Your task to perform on an android device: Search for "corsair k70" on target, select the first entry, add it to the cart, then select checkout. Image 0: 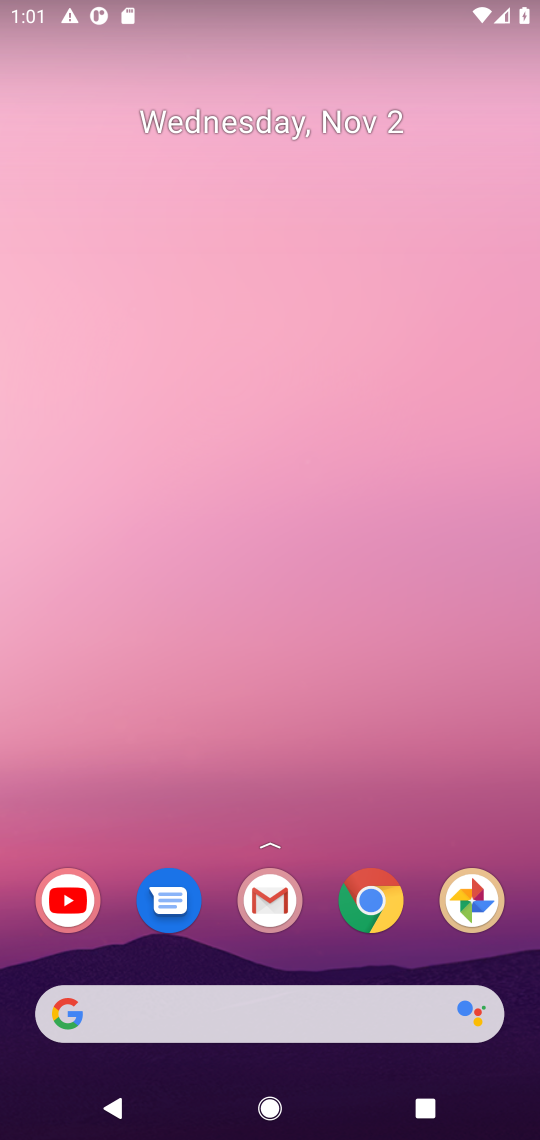
Step 0: click (377, 901)
Your task to perform on an android device: Search for "corsair k70" on target, select the first entry, add it to the cart, then select checkout. Image 1: 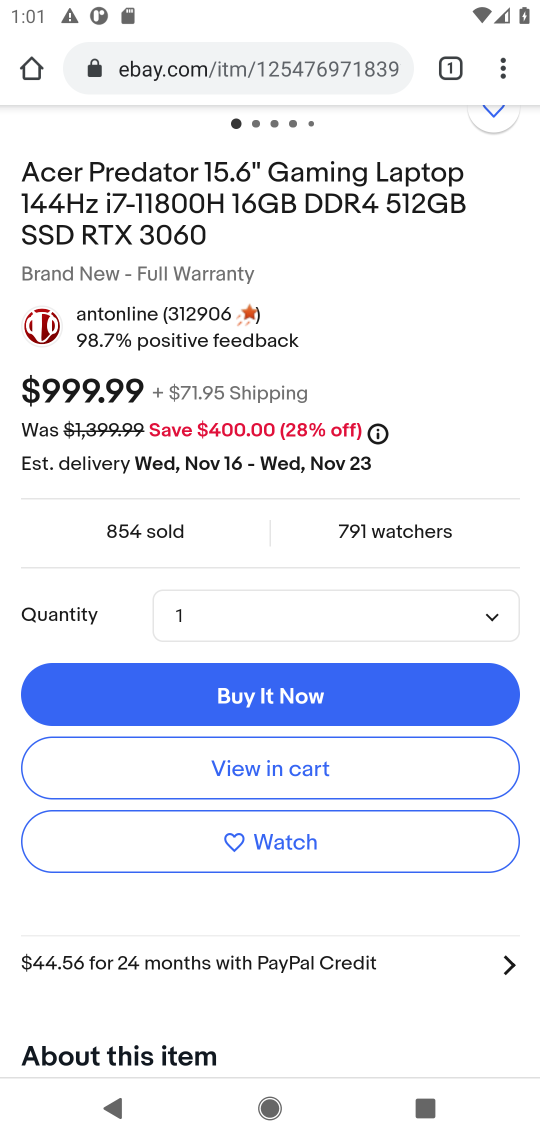
Step 1: click (173, 55)
Your task to perform on an android device: Search for "corsair k70" on target, select the first entry, add it to the cart, then select checkout. Image 2: 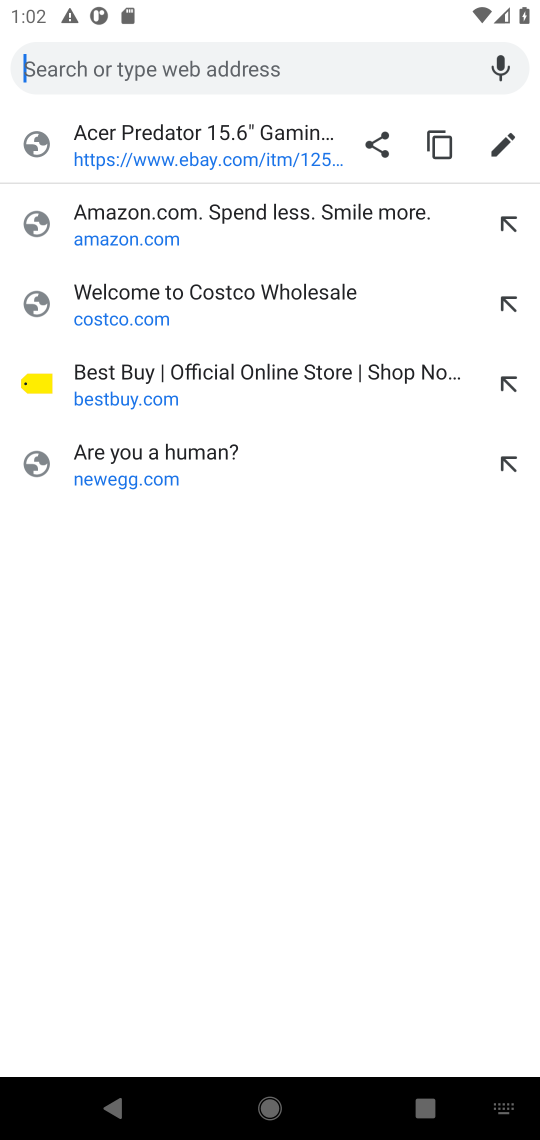
Step 2: type "target"
Your task to perform on an android device: Search for "corsair k70" on target, select the first entry, add it to the cart, then select checkout. Image 3: 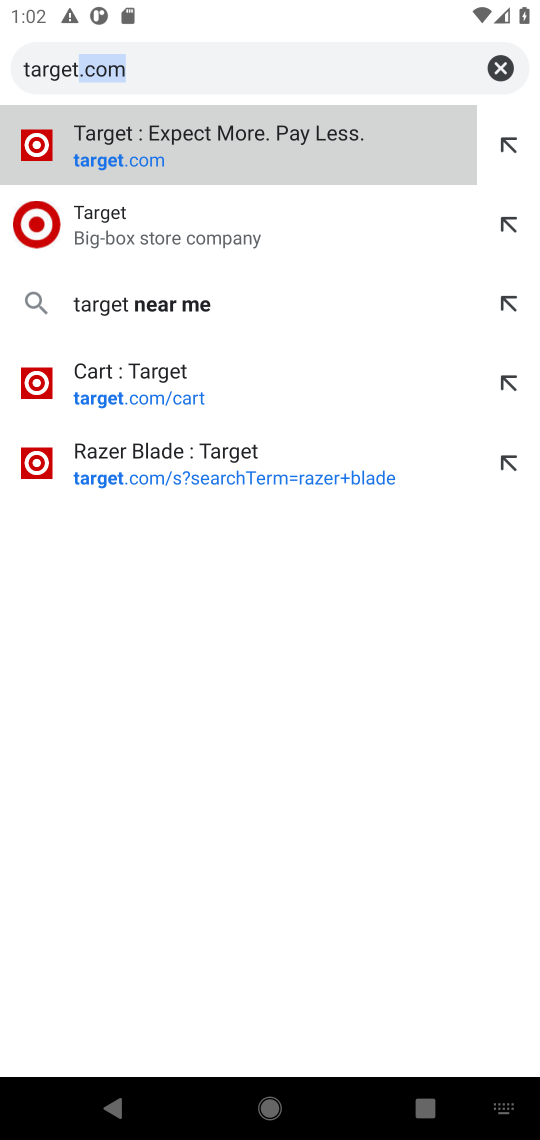
Step 3: click (156, 205)
Your task to perform on an android device: Search for "corsair k70" on target, select the first entry, add it to the cart, then select checkout. Image 4: 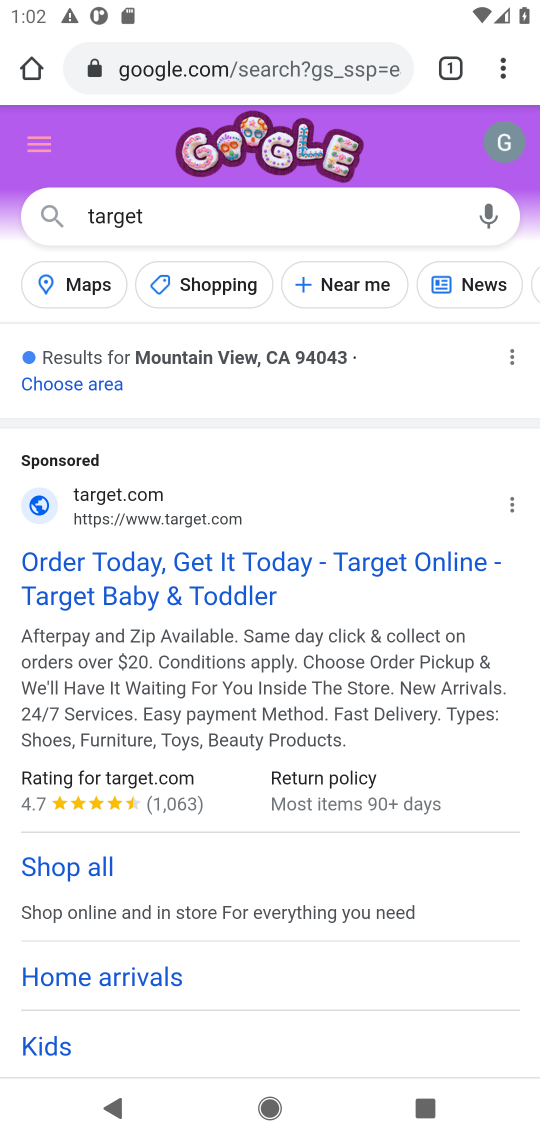
Step 4: click (145, 586)
Your task to perform on an android device: Search for "corsair k70" on target, select the first entry, add it to the cart, then select checkout. Image 5: 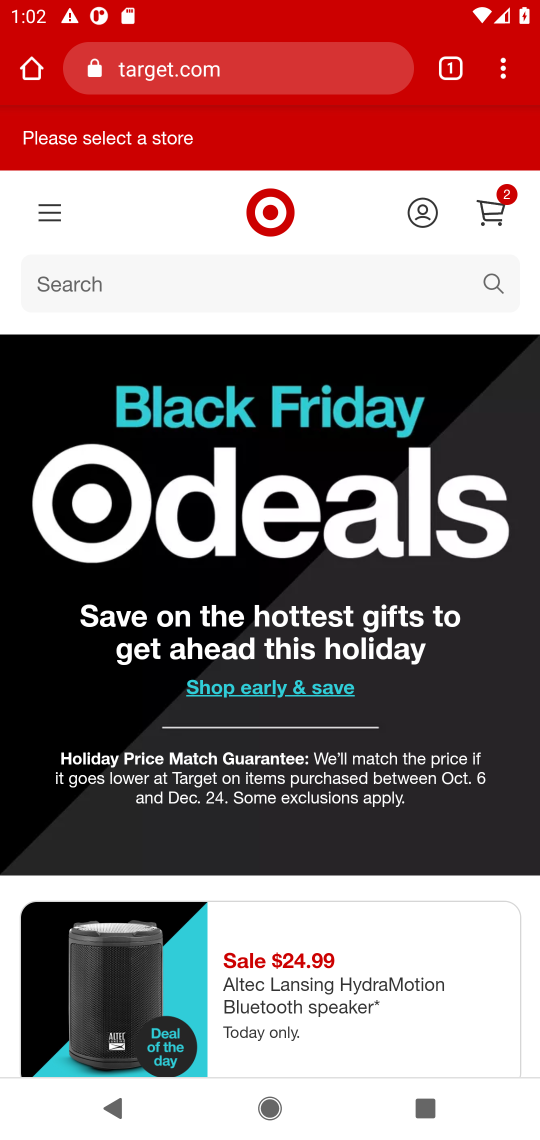
Step 5: click (337, 287)
Your task to perform on an android device: Search for "corsair k70" on target, select the first entry, add it to the cart, then select checkout. Image 6: 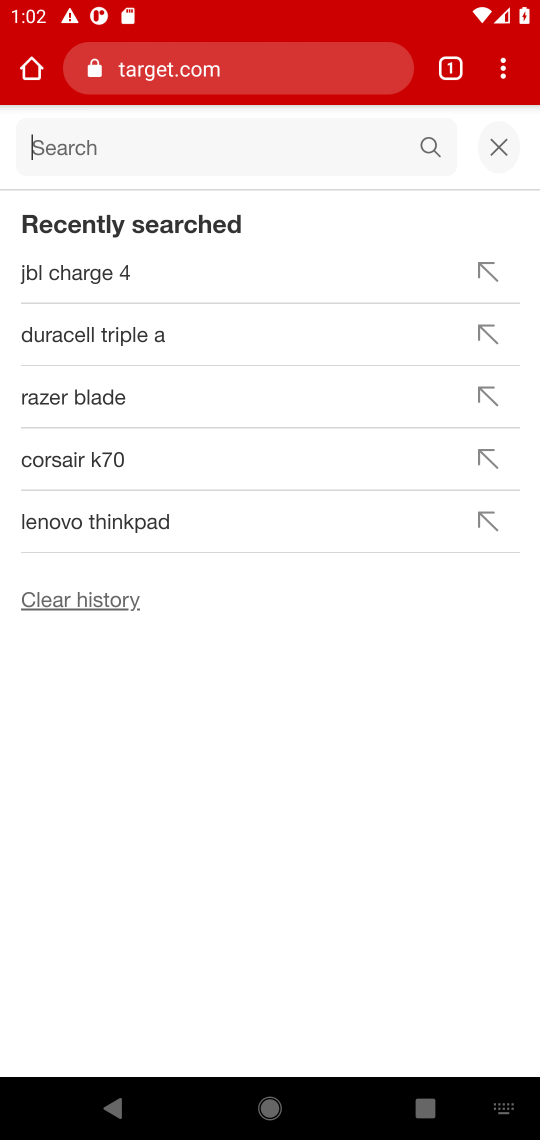
Step 6: type "corsair k70"
Your task to perform on an android device: Search for "corsair k70" on target, select the first entry, add it to the cart, then select checkout. Image 7: 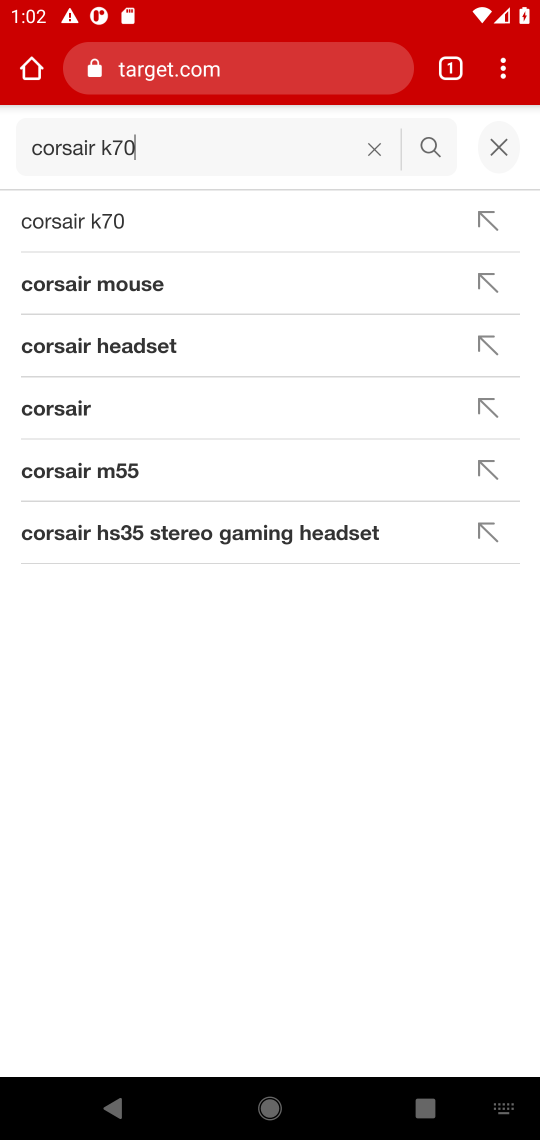
Step 7: type ""
Your task to perform on an android device: Search for "corsair k70" on target, select the first entry, add it to the cart, then select checkout. Image 8: 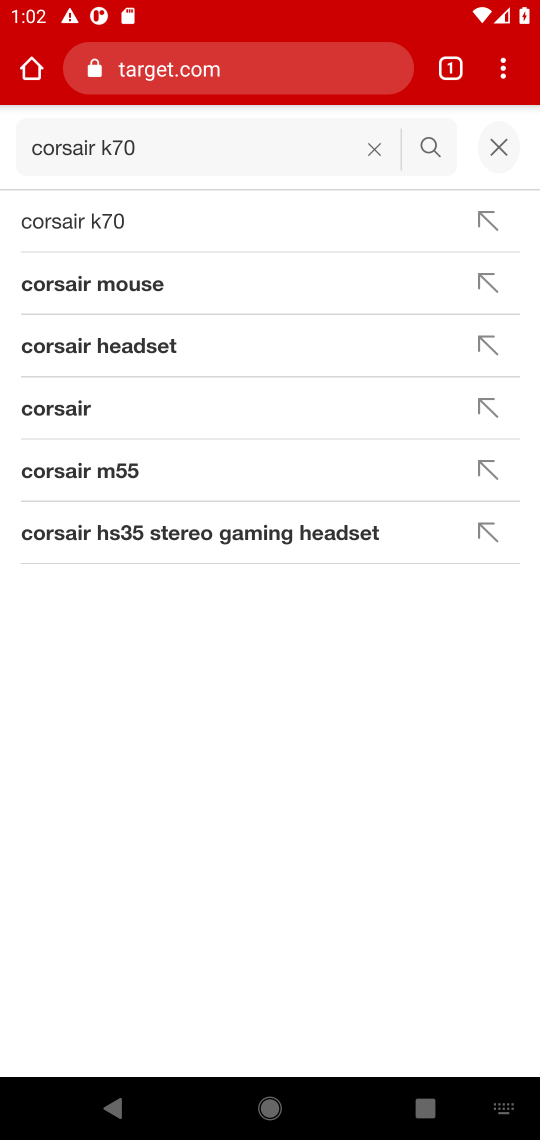
Step 8: click (440, 139)
Your task to perform on an android device: Search for "corsair k70" on target, select the first entry, add it to the cart, then select checkout. Image 9: 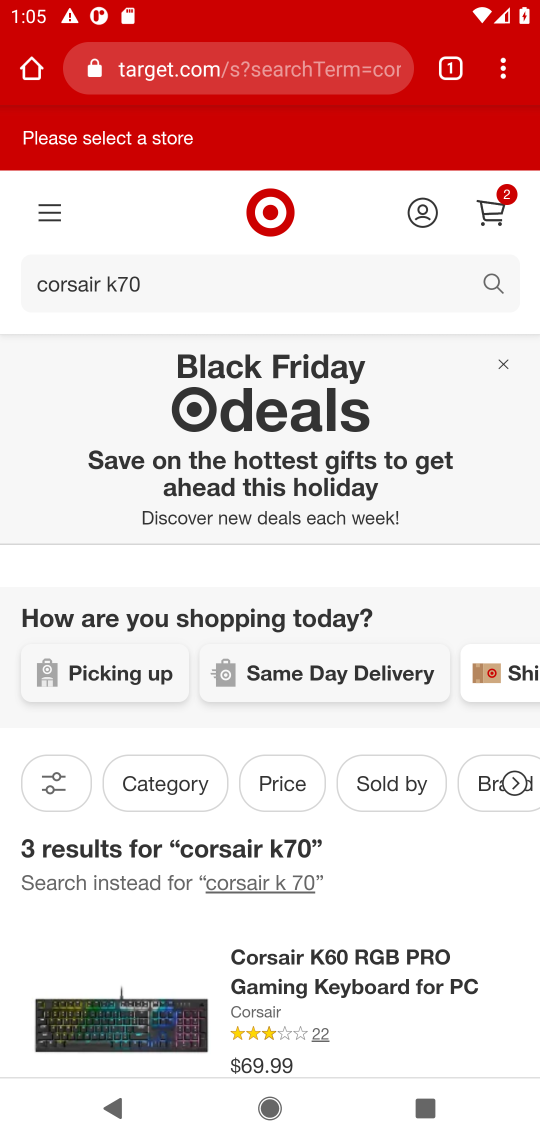
Step 9: task complete